Your task to perform on an android device: Search for sushi restaurants on Maps Image 0: 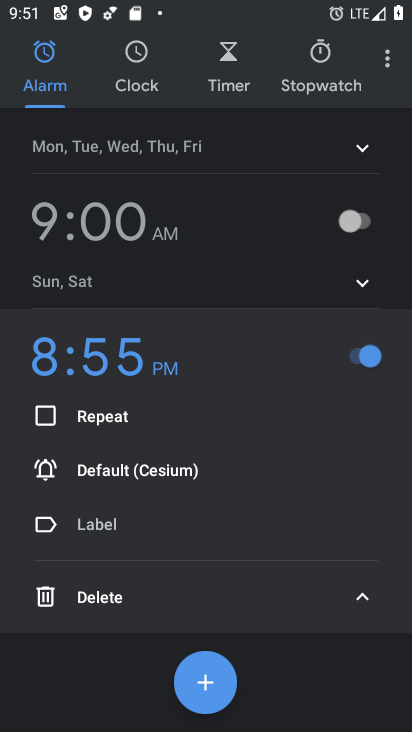
Step 0: press home button
Your task to perform on an android device: Search for sushi restaurants on Maps Image 1: 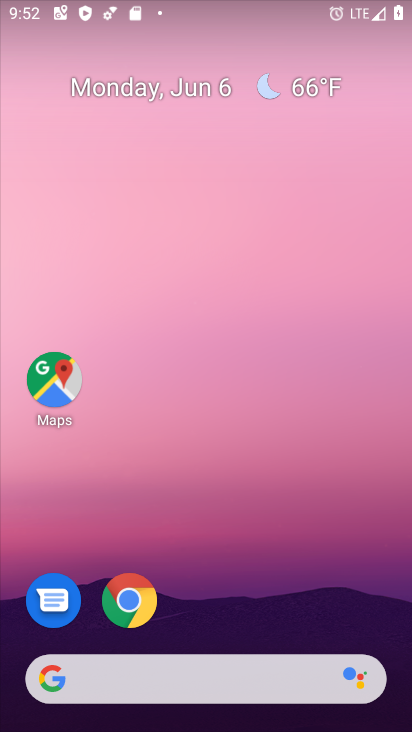
Step 1: click (60, 373)
Your task to perform on an android device: Search for sushi restaurants on Maps Image 2: 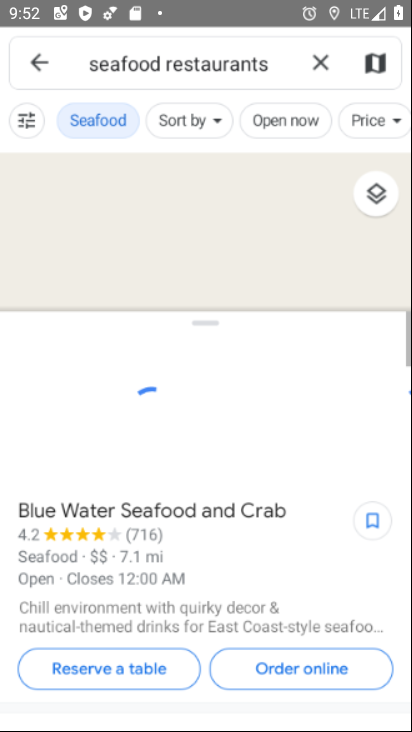
Step 2: click (322, 64)
Your task to perform on an android device: Search for sushi restaurants on Maps Image 3: 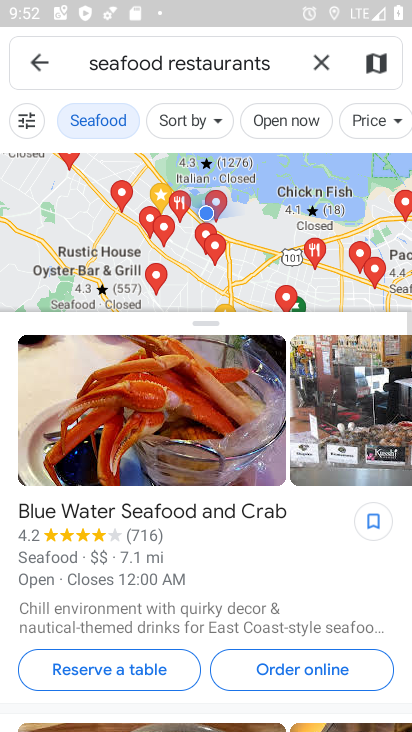
Step 3: click (321, 65)
Your task to perform on an android device: Search for sushi restaurants on Maps Image 4: 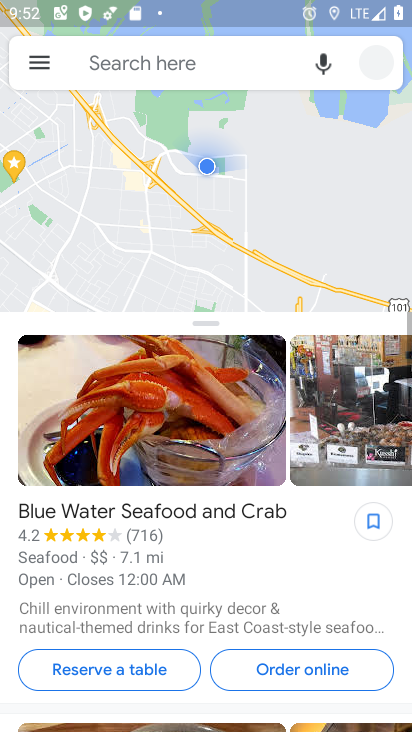
Step 4: click (199, 65)
Your task to perform on an android device: Search for sushi restaurants on Maps Image 5: 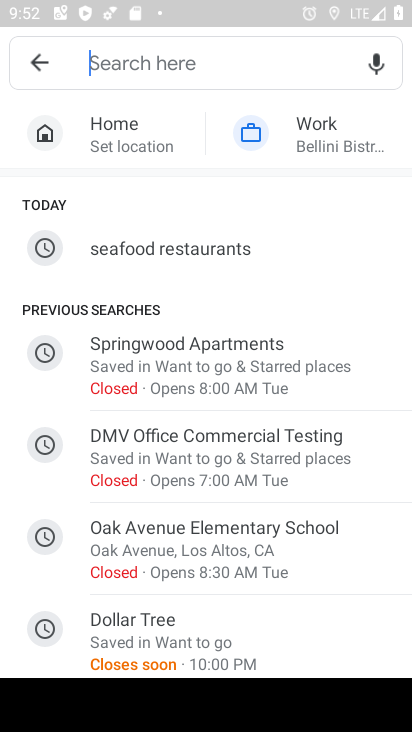
Step 5: click (135, 65)
Your task to perform on an android device: Search for sushi restaurants on Maps Image 6: 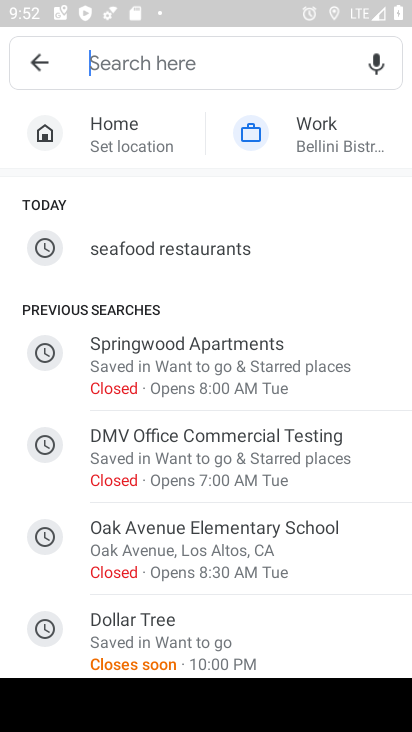
Step 6: click (219, 64)
Your task to perform on an android device: Search for sushi restaurants on Maps Image 7: 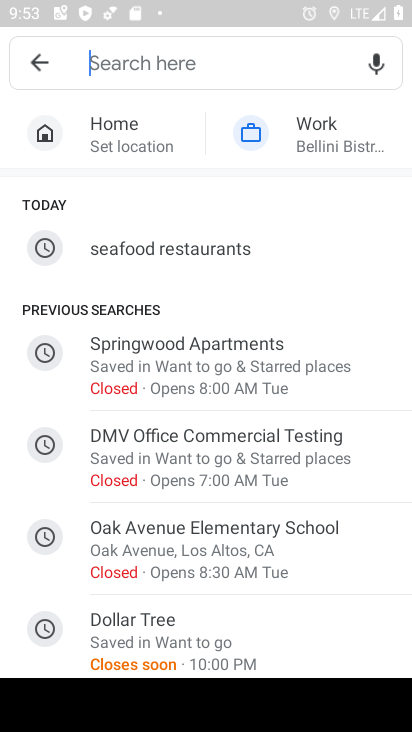
Step 7: type " sushi restaurants "
Your task to perform on an android device: Search for sushi restaurants on Maps Image 8: 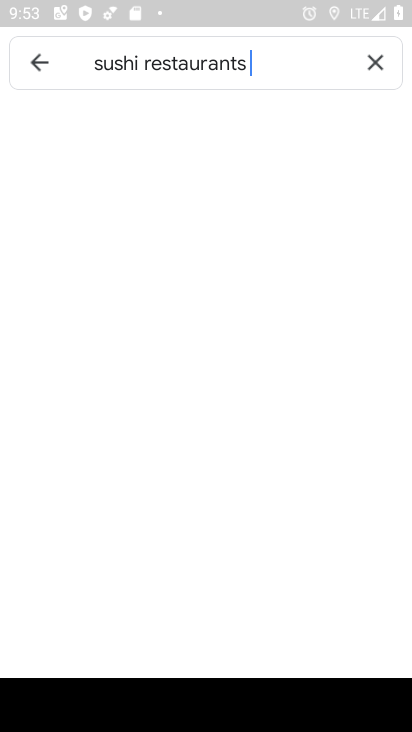
Step 8: type ""
Your task to perform on an android device: Search for sushi restaurants on Maps Image 9: 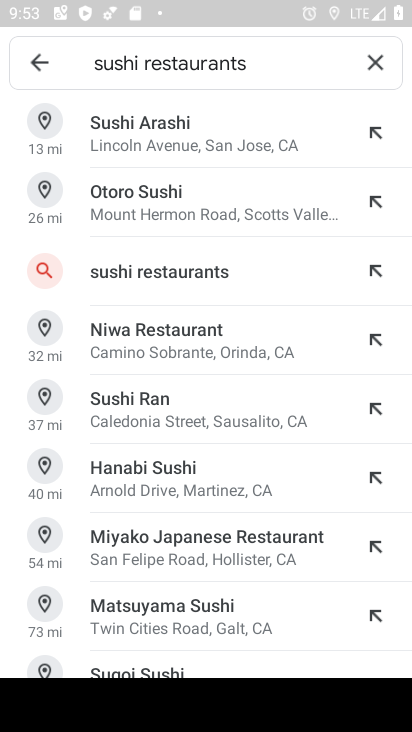
Step 9: click (225, 267)
Your task to perform on an android device: Search for sushi restaurants on Maps Image 10: 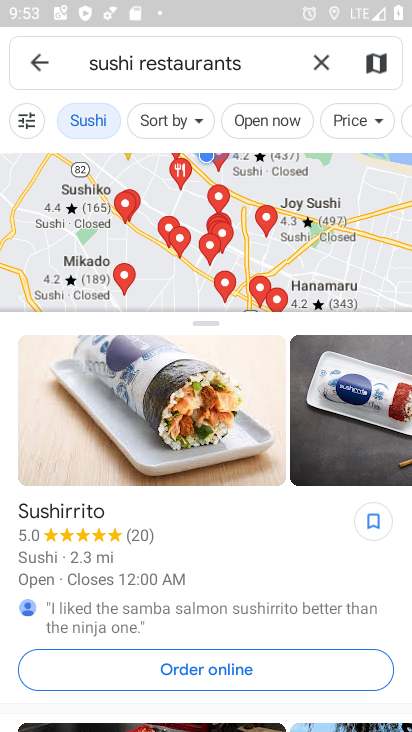
Step 10: task complete